Your task to perform on an android device: open a new tab in the chrome app Image 0: 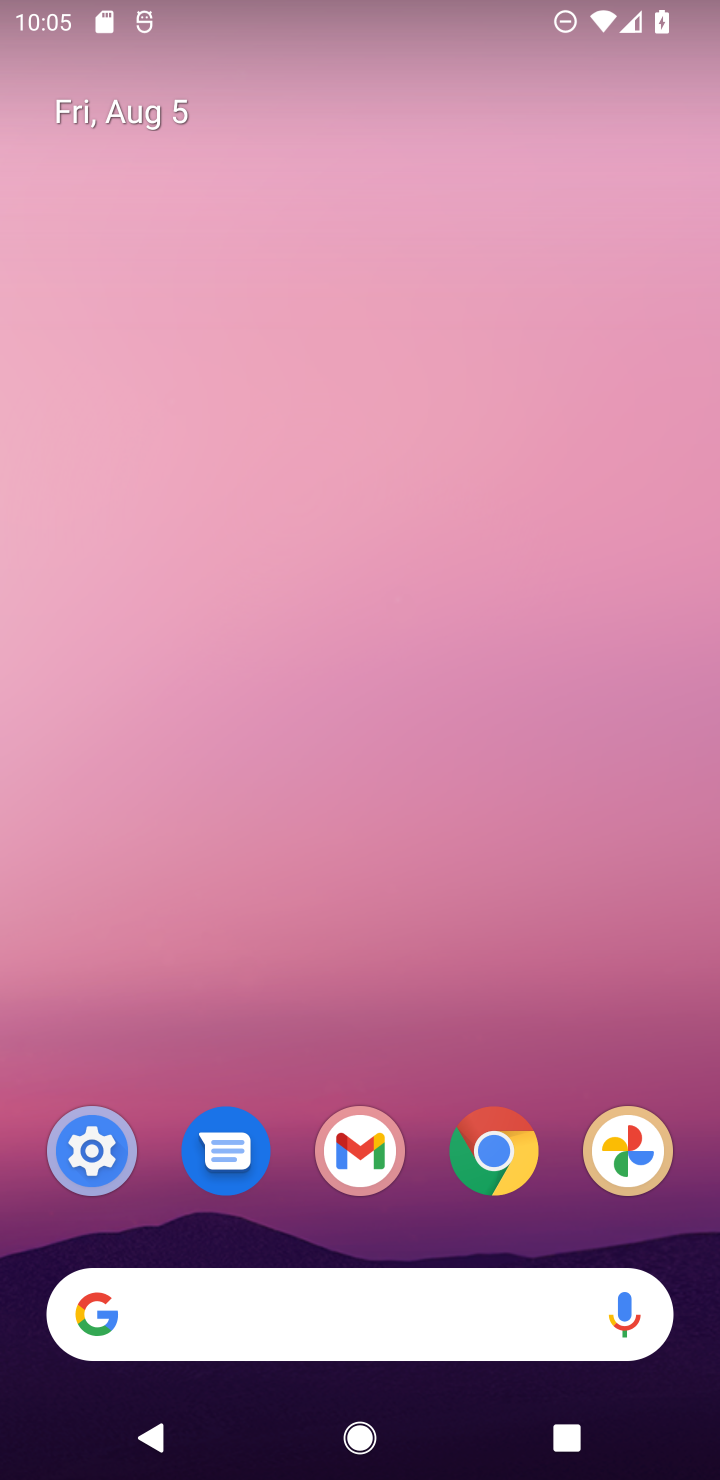
Step 0: click (510, 1151)
Your task to perform on an android device: open a new tab in the chrome app Image 1: 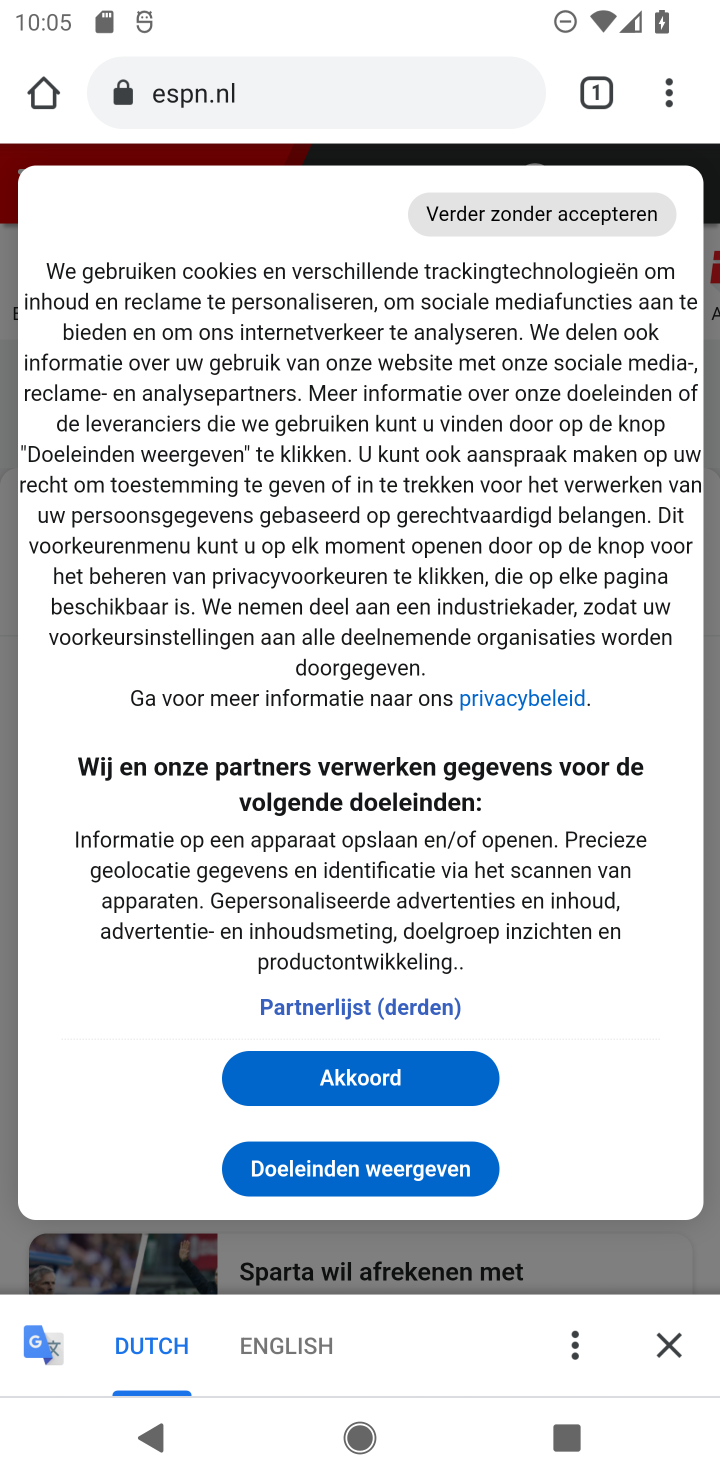
Step 1: click (610, 108)
Your task to perform on an android device: open a new tab in the chrome app Image 2: 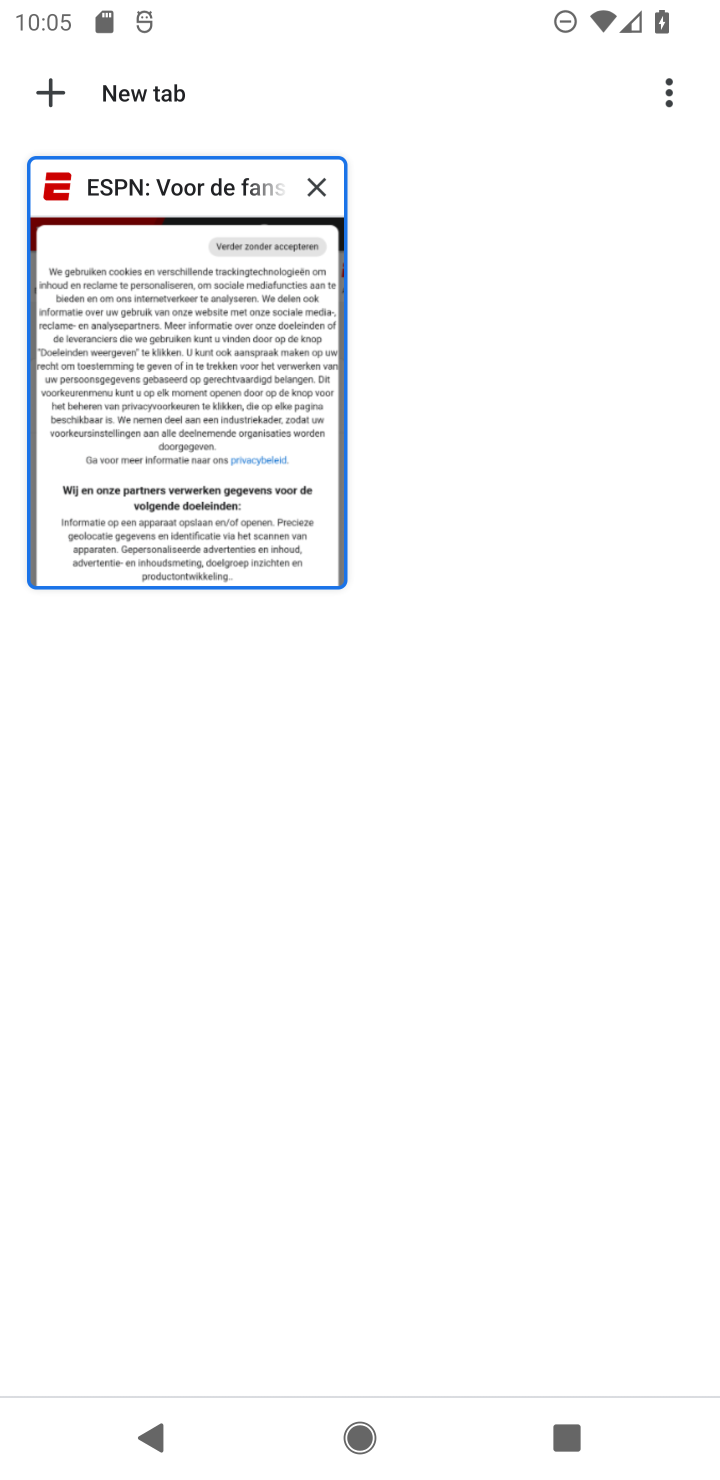
Step 2: click (55, 83)
Your task to perform on an android device: open a new tab in the chrome app Image 3: 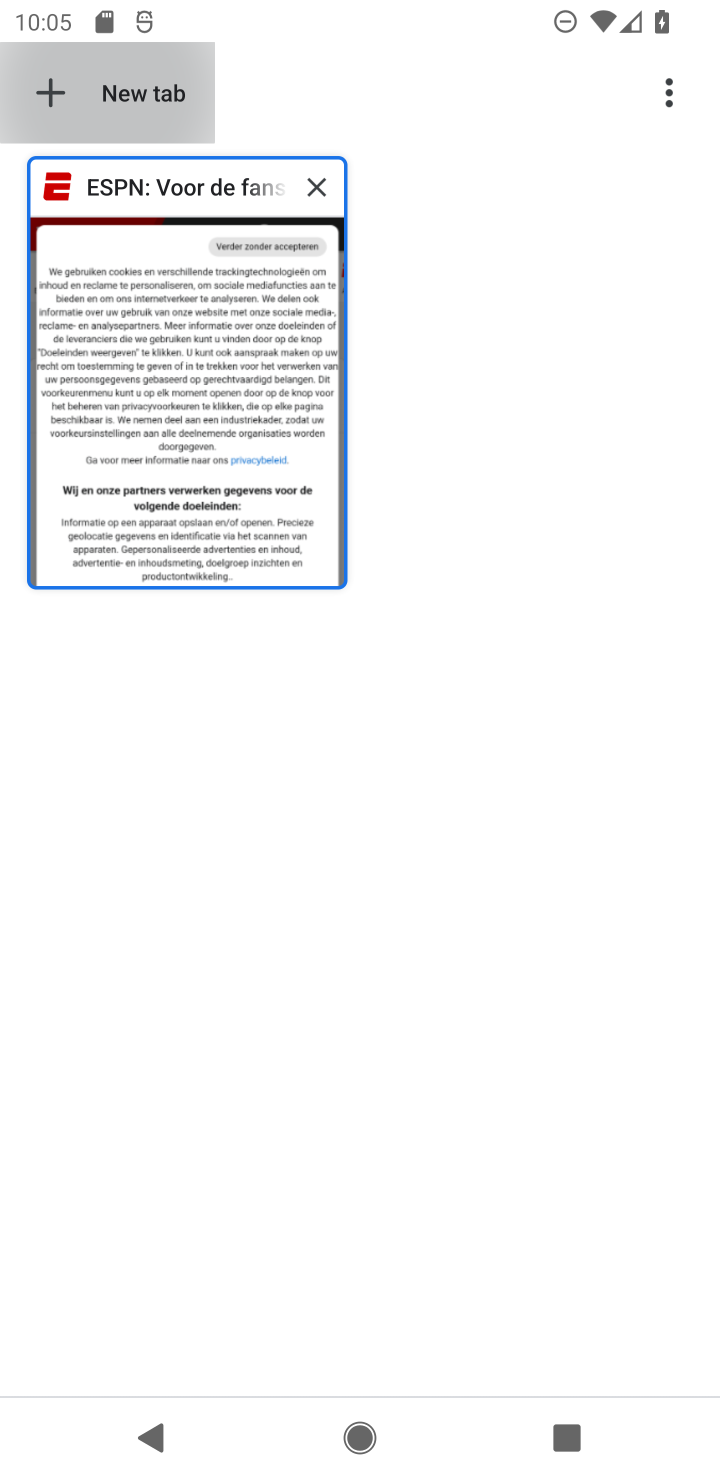
Step 3: task complete